Your task to perform on an android device: Open settings Image 0: 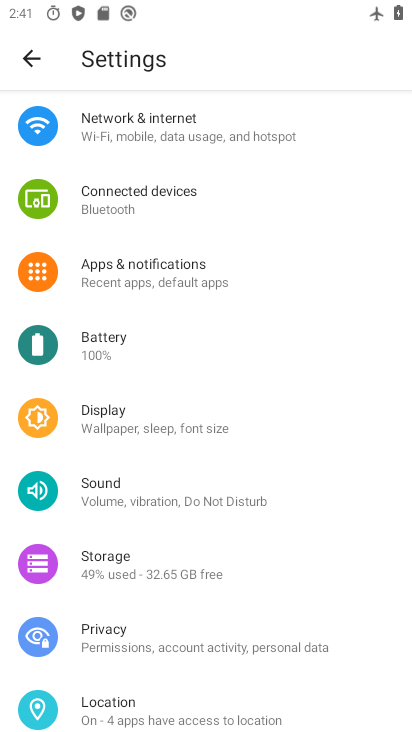
Step 0: drag from (210, 158) to (211, 105)
Your task to perform on an android device: Open settings Image 1: 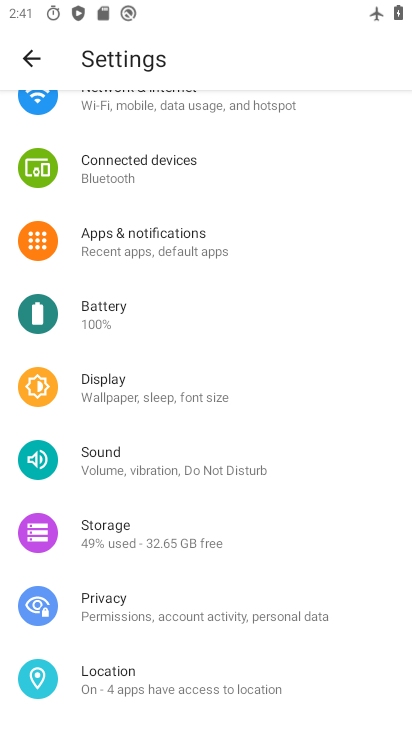
Step 1: task complete